Your task to perform on an android device: open app "Mercado Libre" Image 0: 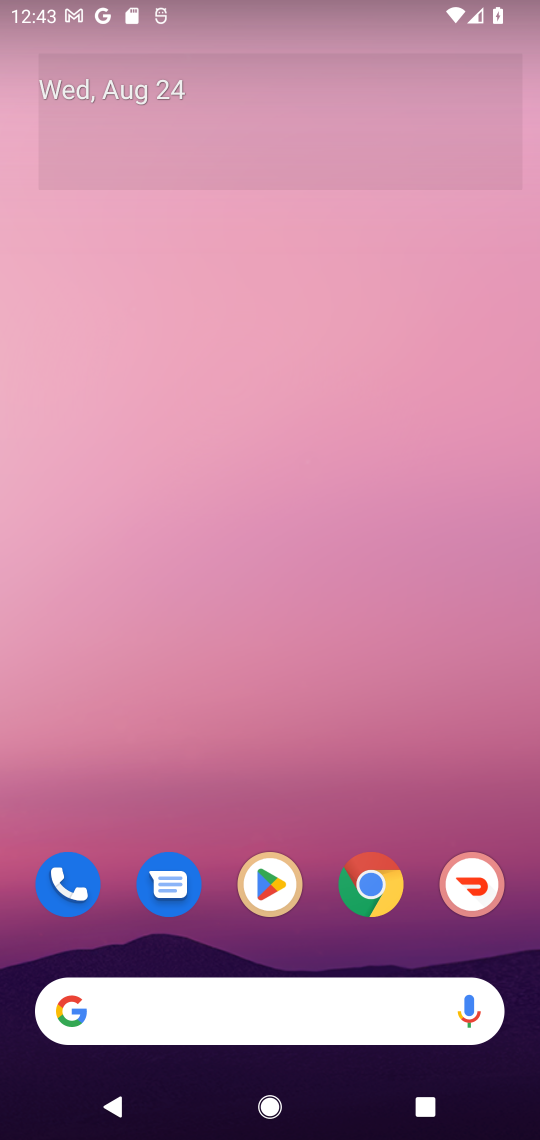
Step 0: drag from (229, 1014) to (257, 205)
Your task to perform on an android device: open app "Mercado Libre" Image 1: 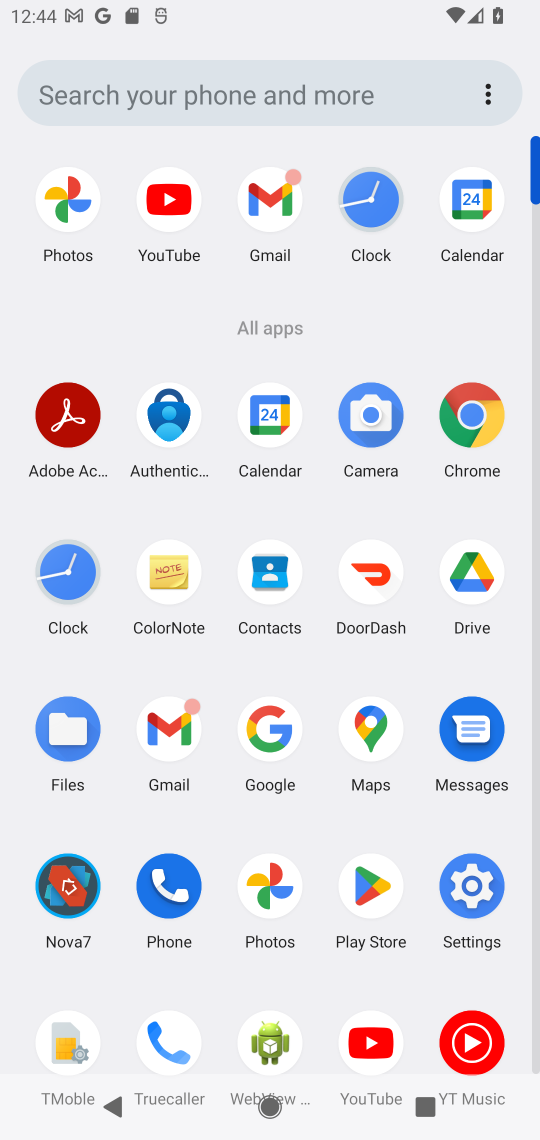
Step 1: click (369, 890)
Your task to perform on an android device: open app "Mercado Libre" Image 2: 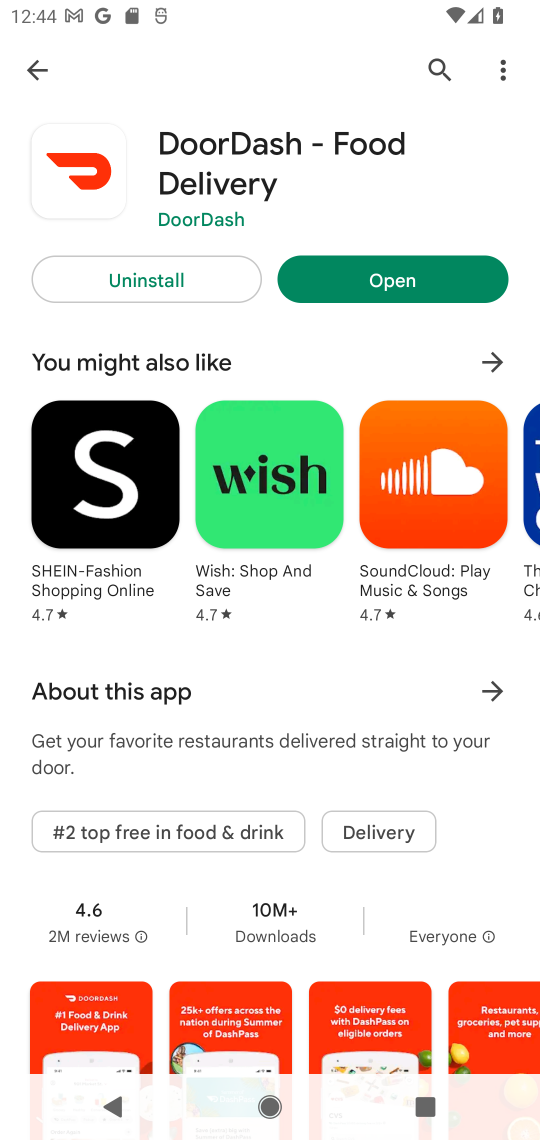
Step 2: press back button
Your task to perform on an android device: open app "Mercado Libre" Image 3: 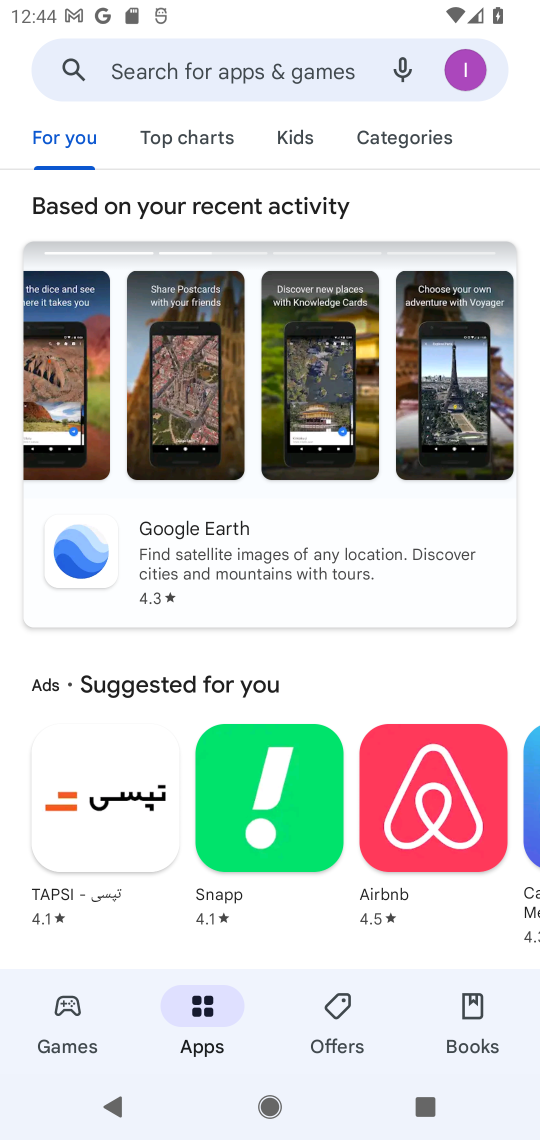
Step 3: click (270, 78)
Your task to perform on an android device: open app "Mercado Libre" Image 4: 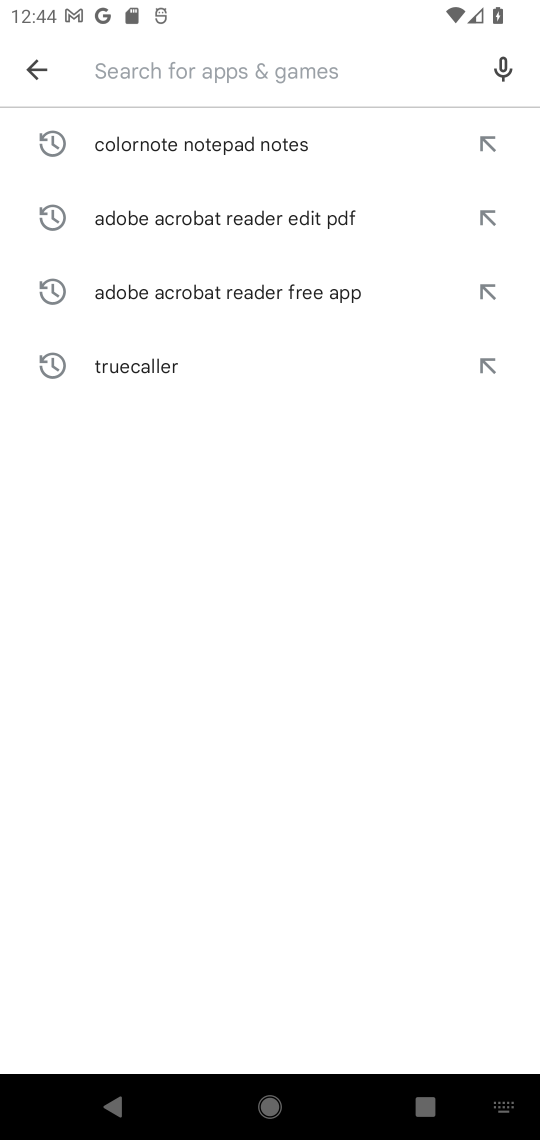
Step 4: type "Mercado Libre"
Your task to perform on an android device: open app "Mercado Libre" Image 5: 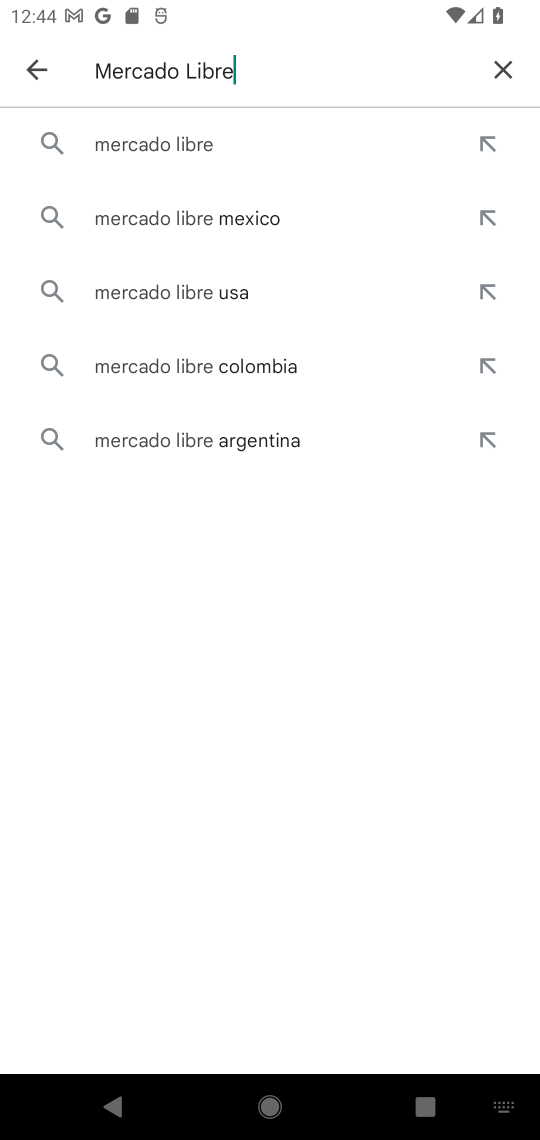
Step 5: click (197, 148)
Your task to perform on an android device: open app "Mercado Libre" Image 6: 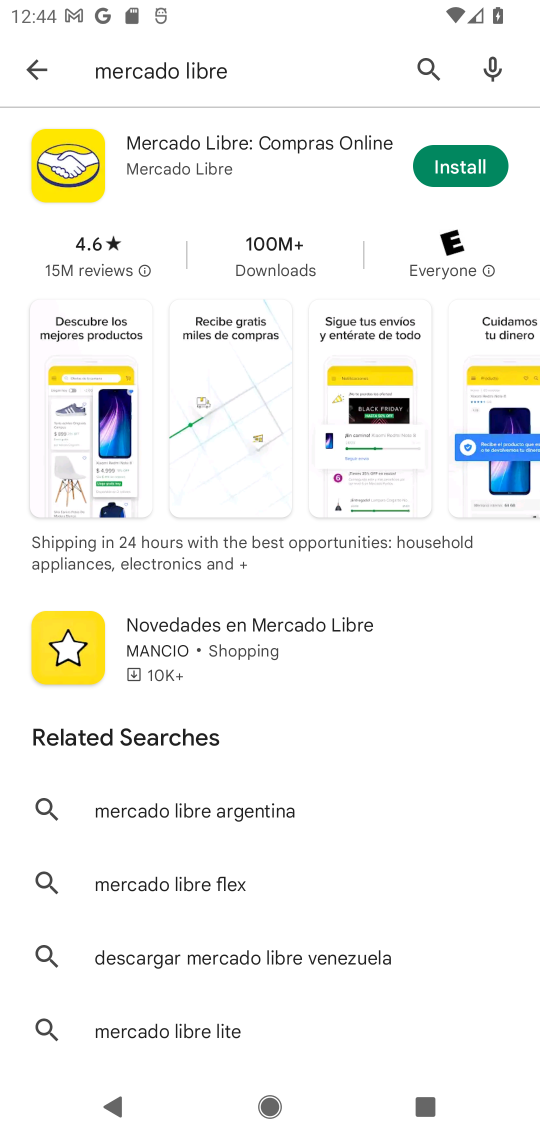
Step 6: click (460, 159)
Your task to perform on an android device: open app "Mercado Libre" Image 7: 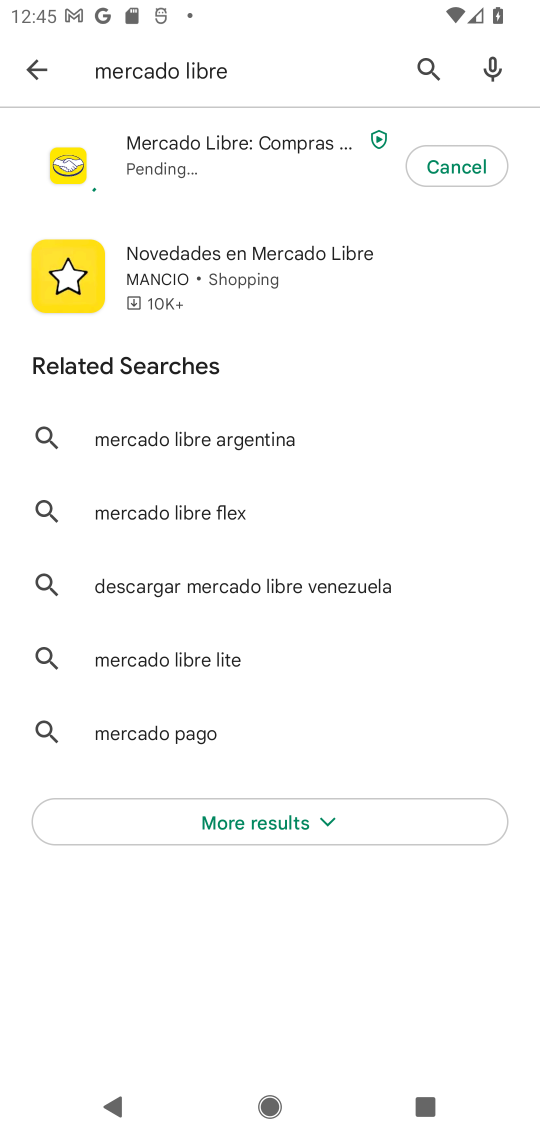
Step 7: click (460, 159)
Your task to perform on an android device: open app "Mercado Libre" Image 8: 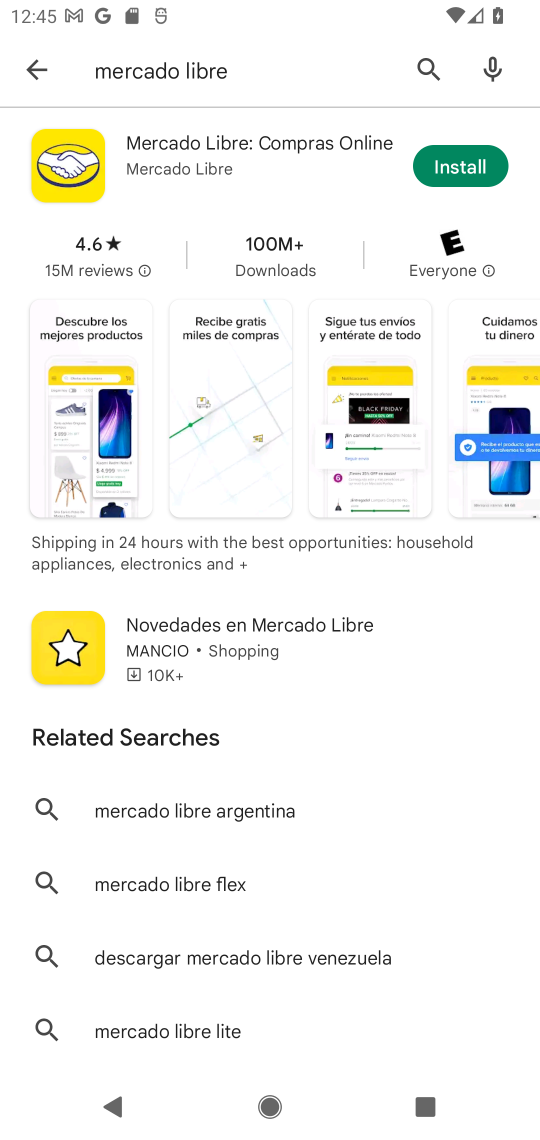
Step 8: task complete